Your task to perform on an android device: Open calendar and show me the fourth week of next month Image 0: 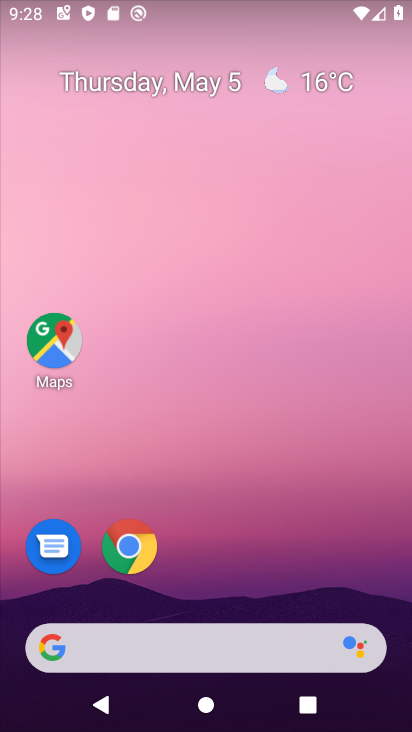
Step 0: drag from (295, 588) to (265, 114)
Your task to perform on an android device: Open calendar and show me the fourth week of next month Image 1: 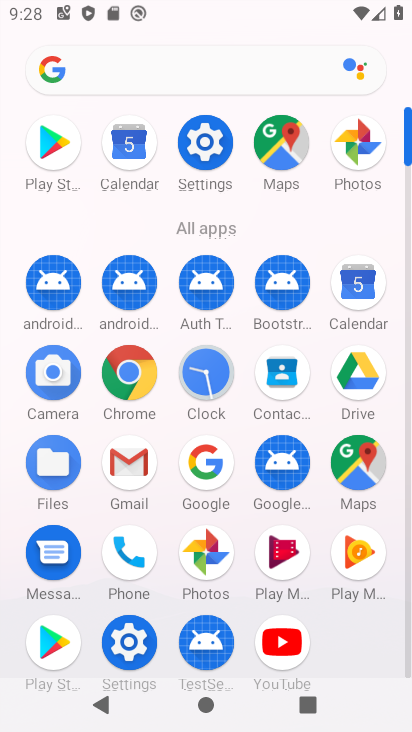
Step 1: click (341, 295)
Your task to perform on an android device: Open calendar and show me the fourth week of next month Image 2: 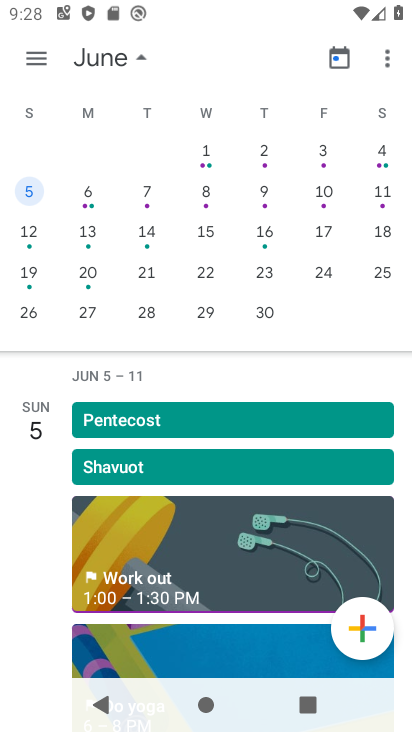
Step 2: click (33, 279)
Your task to perform on an android device: Open calendar and show me the fourth week of next month Image 3: 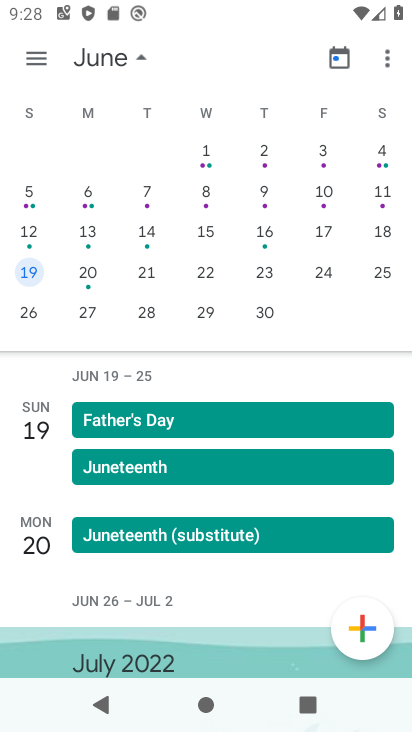
Step 3: task complete